Your task to perform on an android device: Go to privacy settings Image 0: 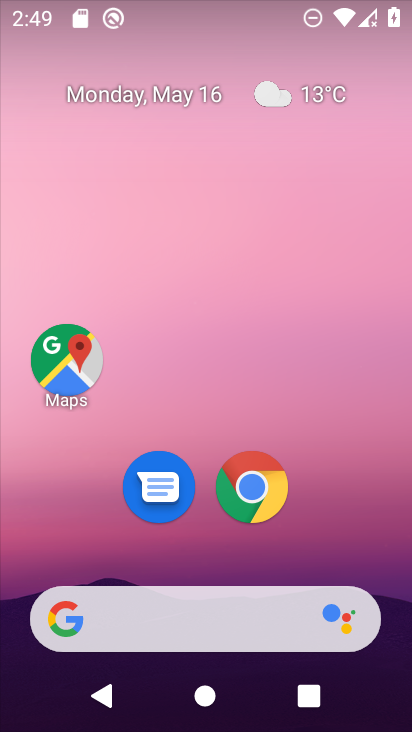
Step 0: drag from (404, 634) to (374, 247)
Your task to perform on an android device: Go to privacy settings Image 1: 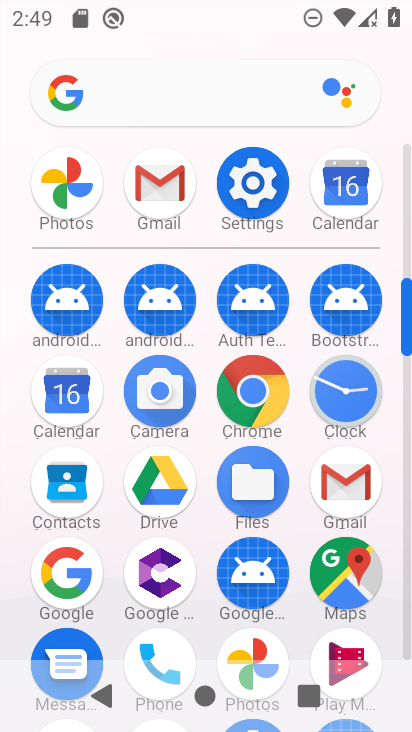
Step 1: click (254, 192)
Your task to perform on an android device: Go to privacy settings Image 2: 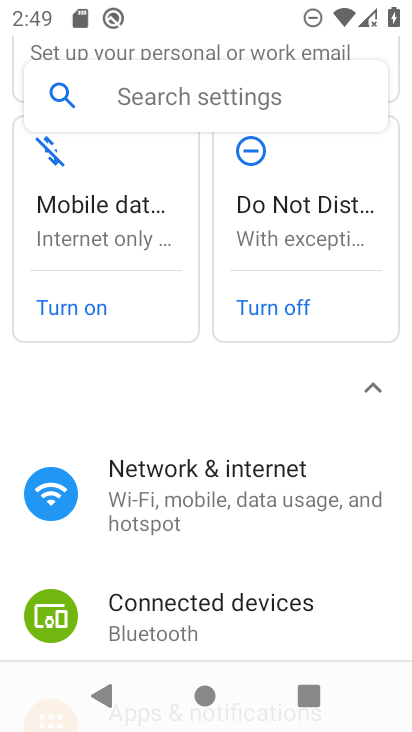
Step 2: press back button
Your task to perform on an android device: Go to privacy settings Image 3: 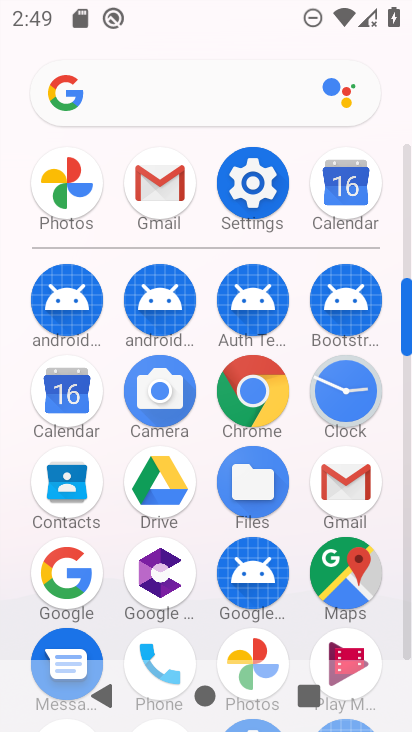
Step 3: click (254, 393)
Your task to perform on an android device: Go to privacy settings Image 4: 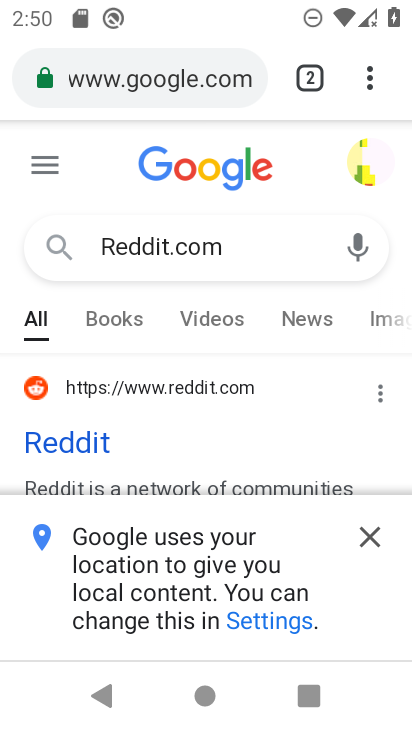
Step 4: click (364, 74)
Your task to perform on an android device: Go to privacy settings Image 5: 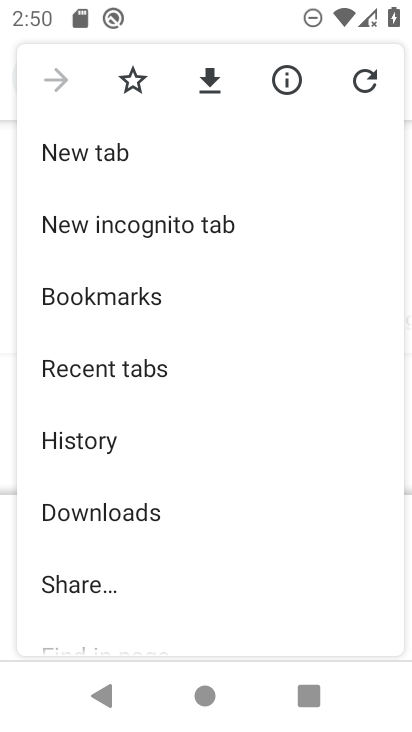
Step 5: drag from (277, 590) to (313, 383)
Your task to perform on an android device: Go to privacy settings Image 6: 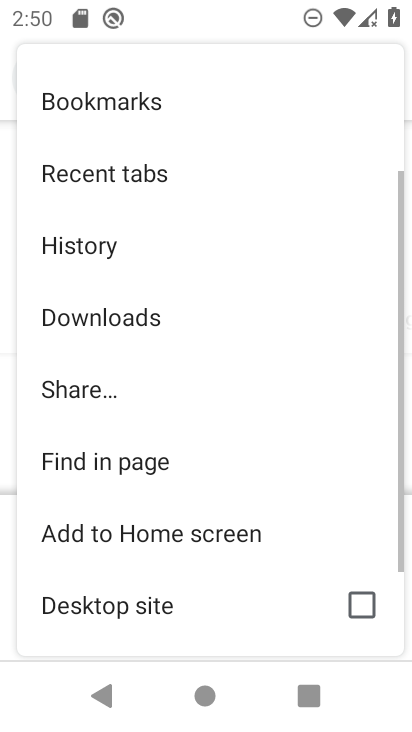
Step 6: drag from (304, 604) to (267, 333)
Your task to perform on an android device: Go to privacy settings Image 7: 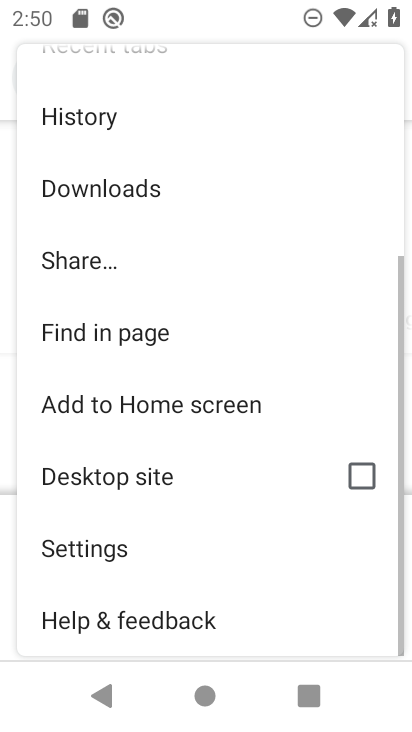
Step 7: click (94, 552)
Your task to perform on an android device: Go to privacy settings Image 8: 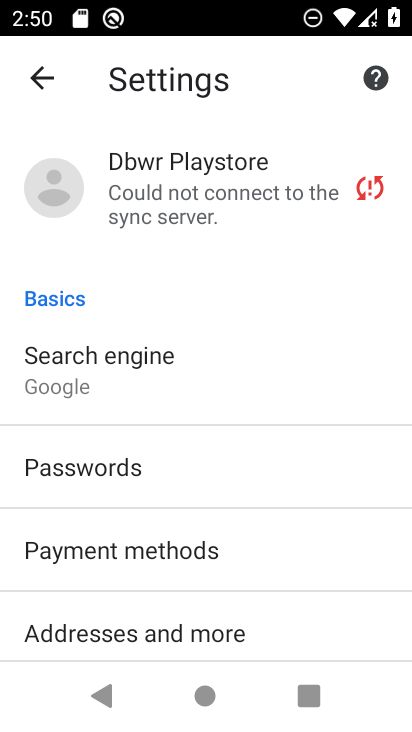
Step 8: drag from (292, 621) to (254, 391)
Your task to perform on an android device: Go to privacy settings Image 9: 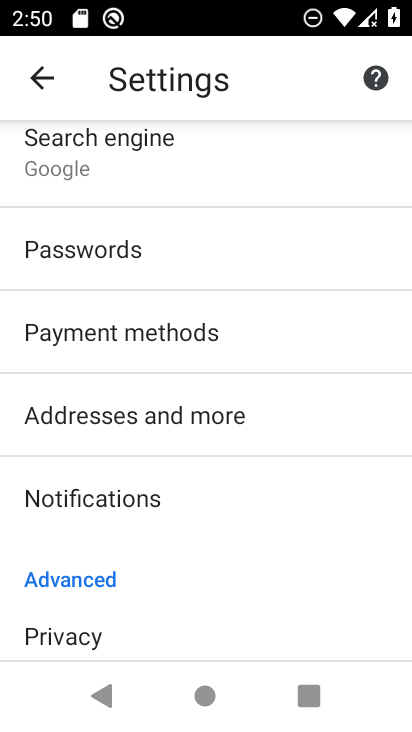
Step 9: click (56, 633)
Your task to perform on an android device: Go to privacy settings Image 10: 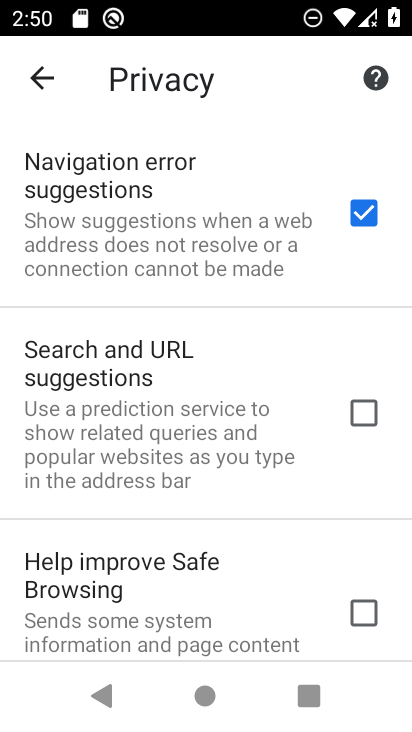
Step 10: task complete